Your task to perform on an android device: Open privacy settings Image 0: 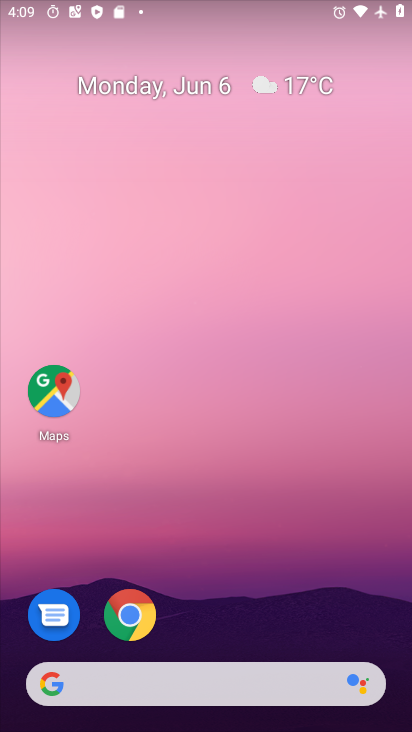
Step 0: drag from (188, 550) to (163, 15)
Your task to perform on an android device: Open privacy settings Image 1: 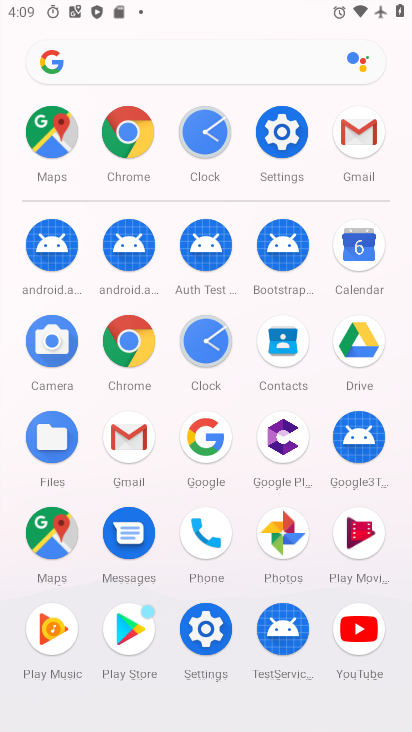
Step 1: drag from (2, 548) to (16, 268)
Your task to perform on an android device: Open privacy settings Image 2: 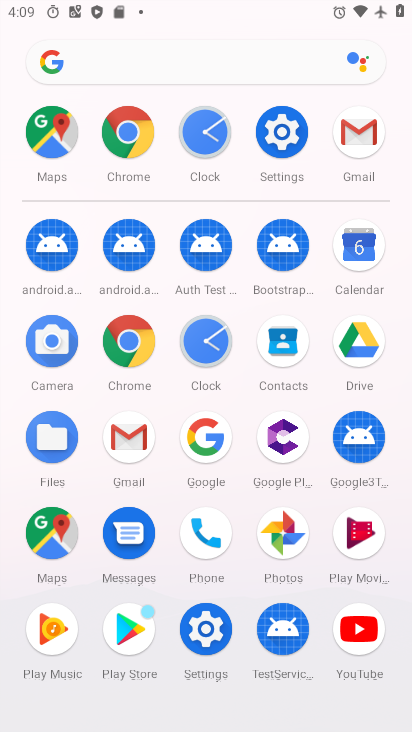
Step 2: click (206, 628)
Your task to perform on an android device: Open privacy settings Image 3: 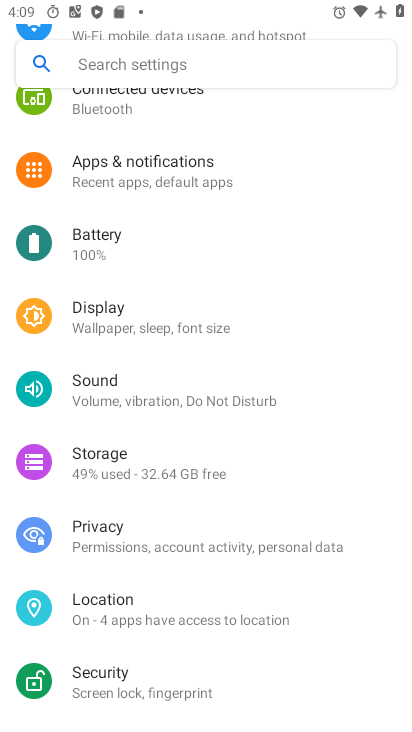
Step 3: click (131, 531)
Your task to perform on an android device: Open privacy settings Image 4: 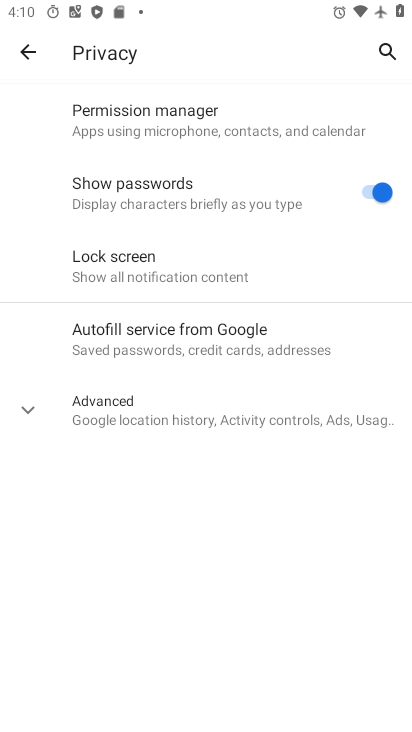
Step 4: click (36, 406)
Your task to perform on an android device: Open privacy settings Image 5: 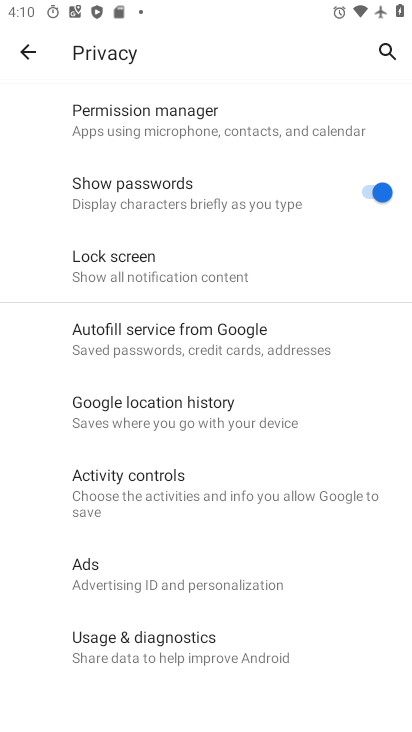
Step 5: task complete